Your task to perform on an android device: open app "Google Duo" Image 0: 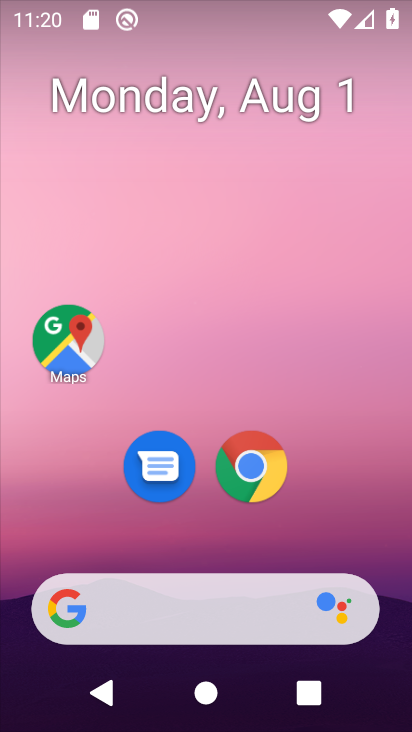
Step 0: drag from (230, 729) to (237, 133)
Your task to perform on an android device: open app "Google Duo" Image 1: 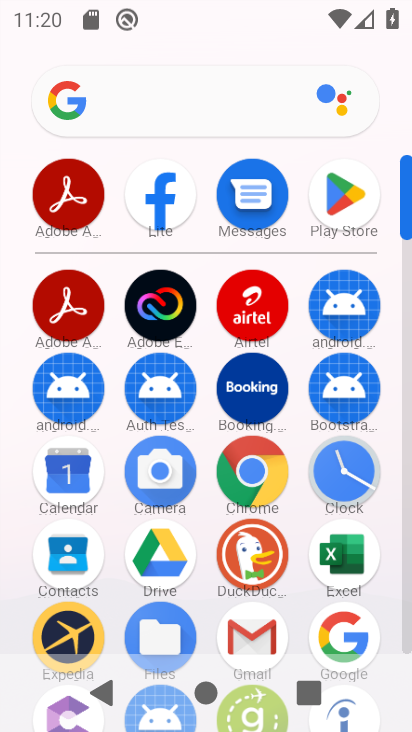
Step 1: click (348, 200)
Your task to perform on an android device: open app "Google Duo" Image 2: 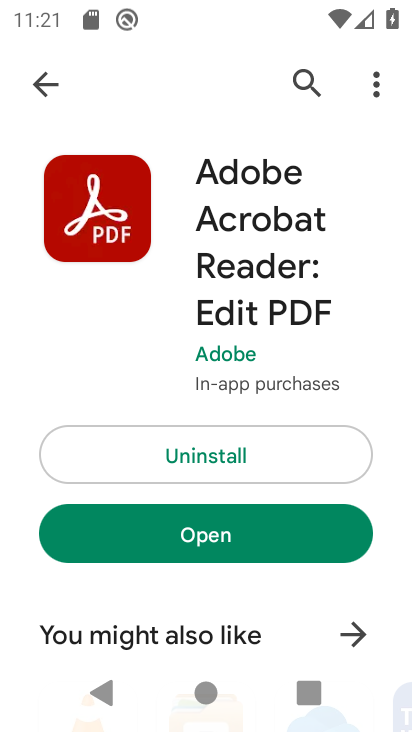
Step 2: click (305, 78)
Your task to perform on an android device: open app "Google Duo" Image 3: 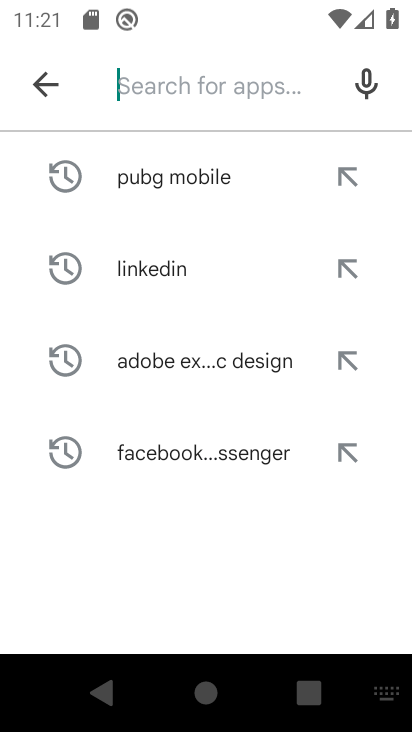
Step 3: type "Google Duo""
Your task to perform on an android device: open app "Google Duo" Image 4: 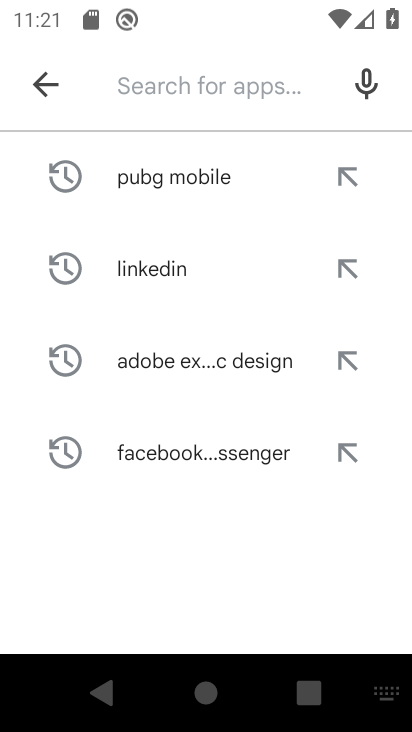
Step 4: type "Google Duo"
Your task to perform on an android device: open app "Google Duo" Image 5: 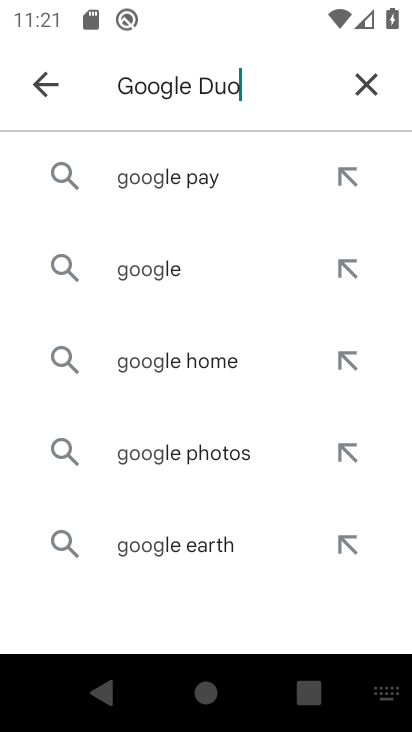
Step 5: type ""
Your task to perform on an android device: open app "Google Duo" Image 6: 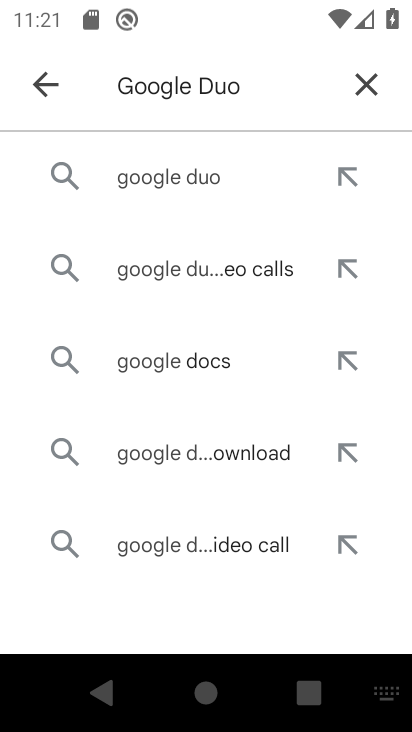
Step 6: click (190, 180)
Your task to perform on an android device: open app "Google Duo" Image 7: 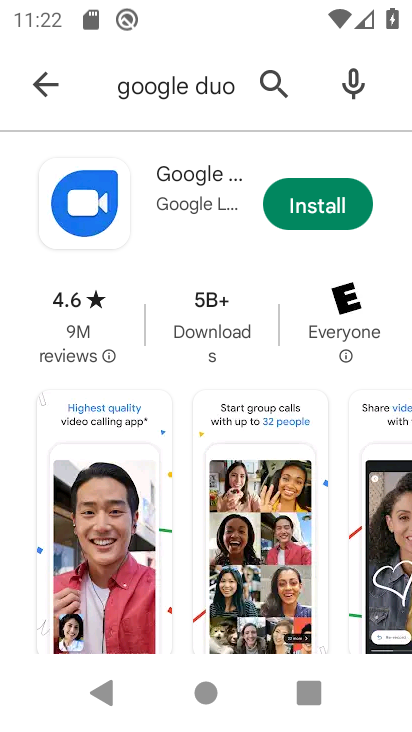
Step 7: task complete